Your task to perform on an android device: clear all cookies in the chrome app Image 0: 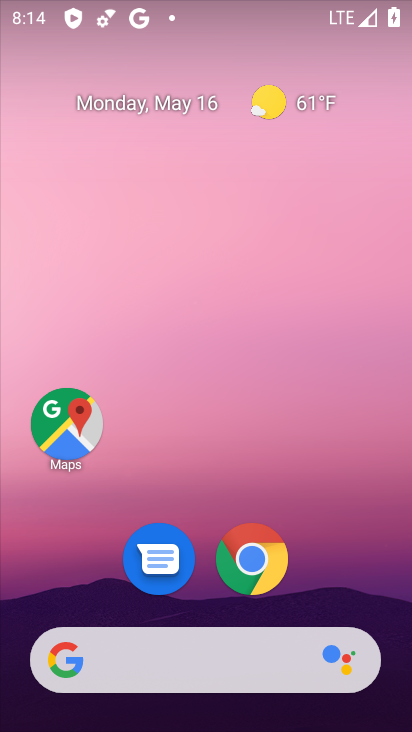
Step 0: click (268, 561)
Your task to perform on an android device: clear all cookies in the chrome app Image 1: 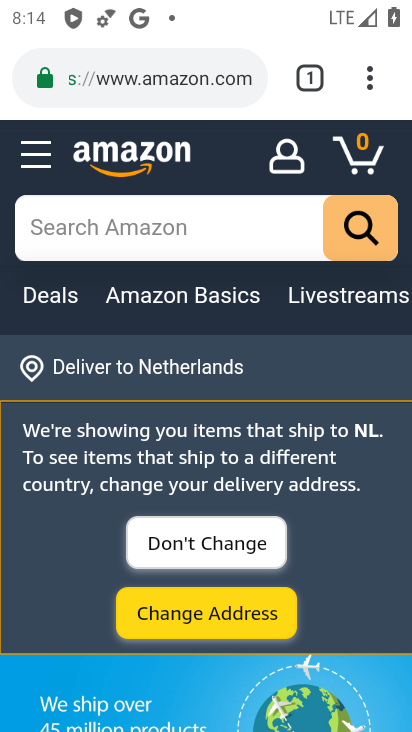
Step 1: drag from (377, 77) to (93, 436)
Your task to perform on an android device: clear all cookies in the chrome app Image 2: 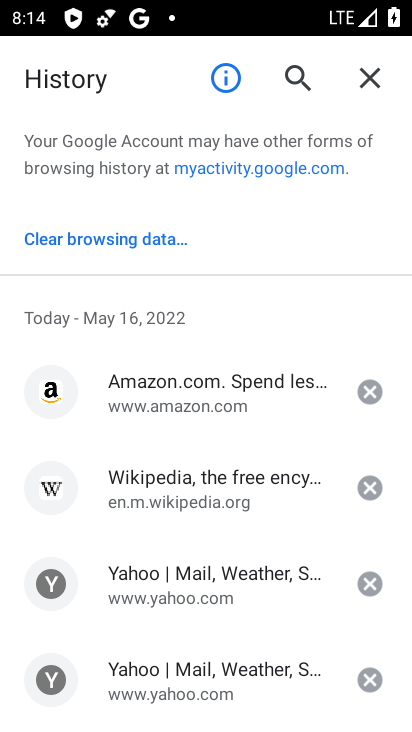
Step 2: click (132, 238)
Your task to perform on an android device: clear all cookies in the chrome app Image 3: 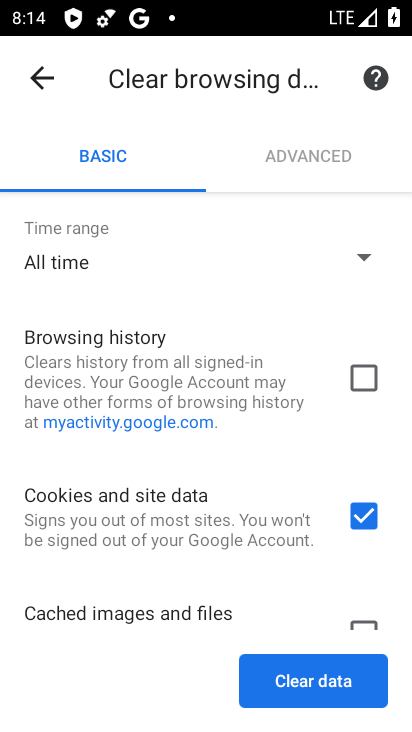
Step 3: click (305, 686)
Your task to perform on an android device: clear all cookies in the chrome app Image 4: 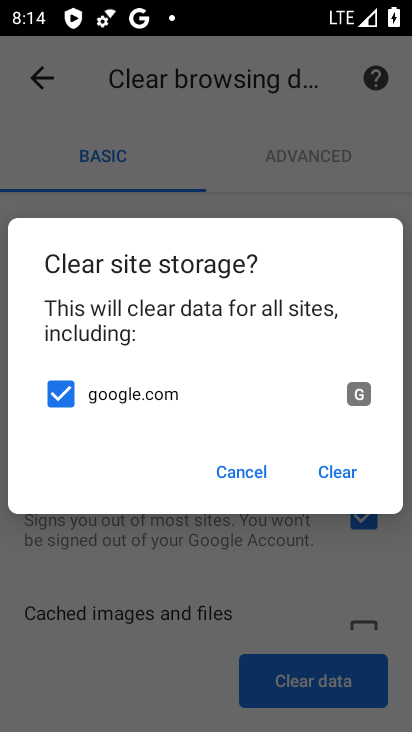
Step 4: click (343, 471)
Your task to perform on an android device: clear all cookies in the chrome app Image 5: 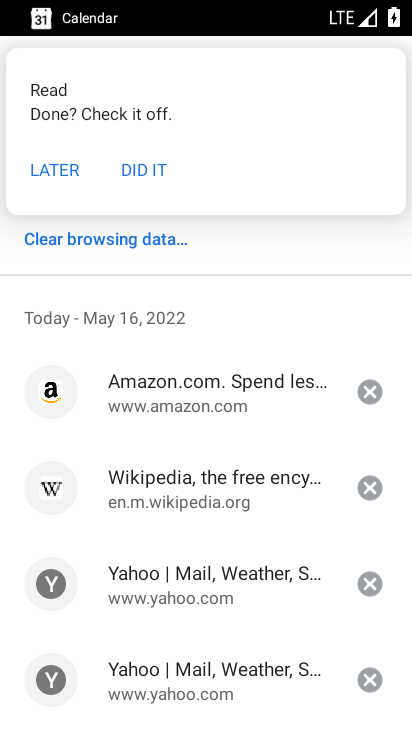
Step 5: task complete